Your task to perform on an android device: Open internet settings Image 0: 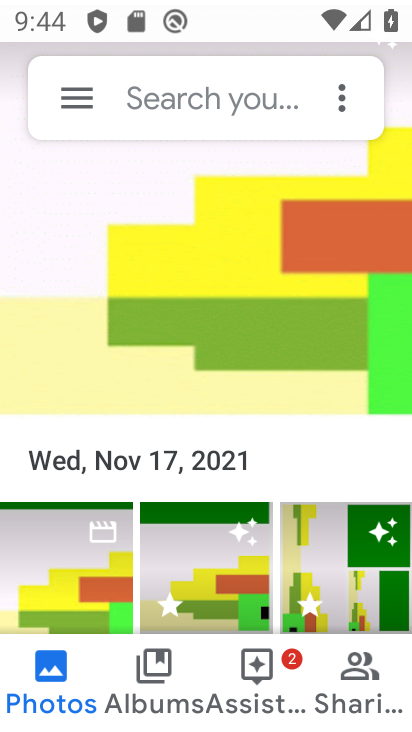
Step 0: press home button
Your task to perform on an android device: Open internet settings Image 1: 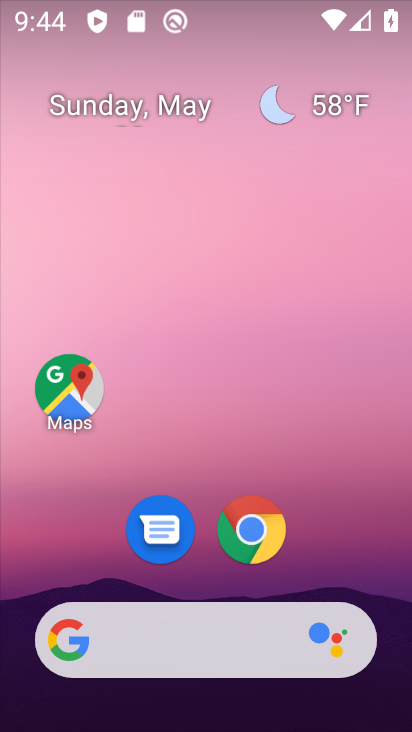
Step 1: drag from (190, 589) to (215, 0)
Your task to perform on an android device: Open internet settings Image 2: 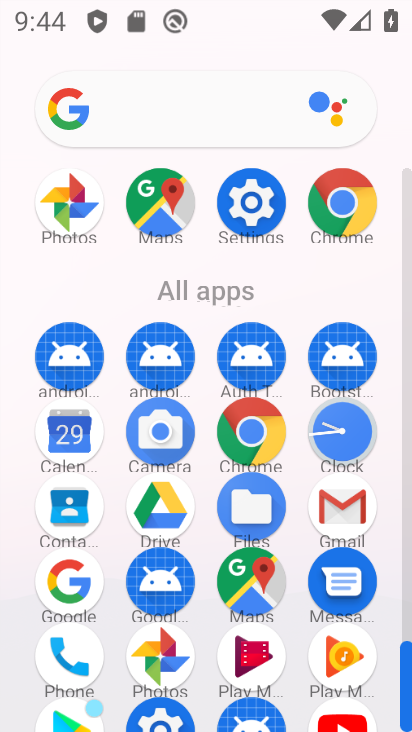
Step 2: click (252, 245)
Your task to perform on an android device: Open internet settings Image 3: 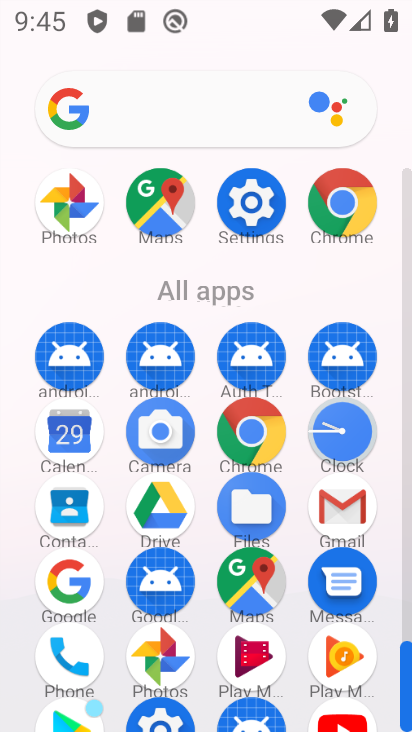
Step 3: click (245, 204)
Your task to perform on an android device: Open internet settings Image 4: 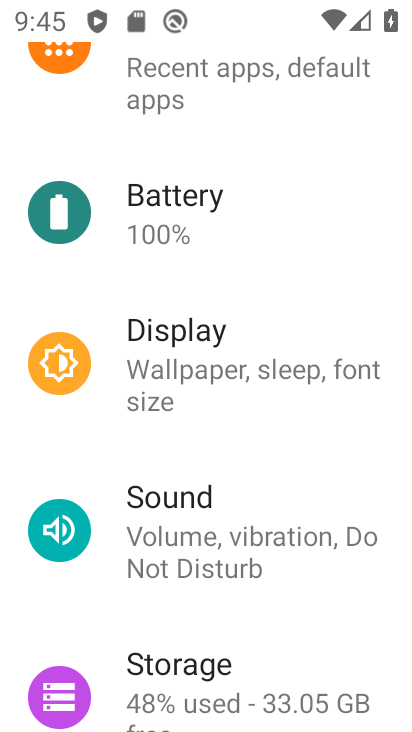
Step 4: drag from (220, 216) to (224, 503)
Your task to perform on an android device: Open internet settings Image 5: 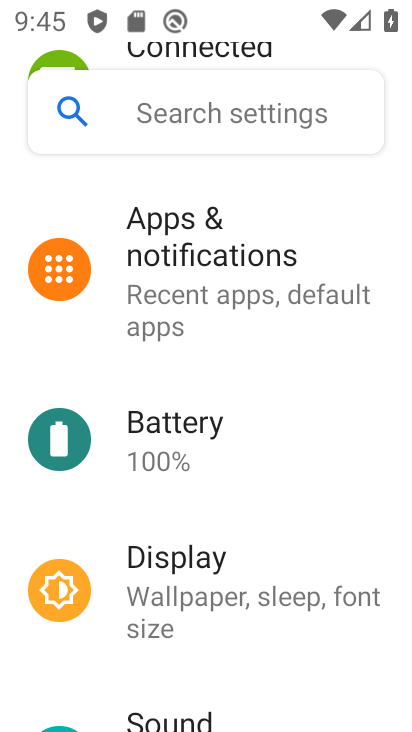
Step 5: drag from (241, 213) to (230, 481)
Your task to perform on an android device: Open internet settings Image 6: 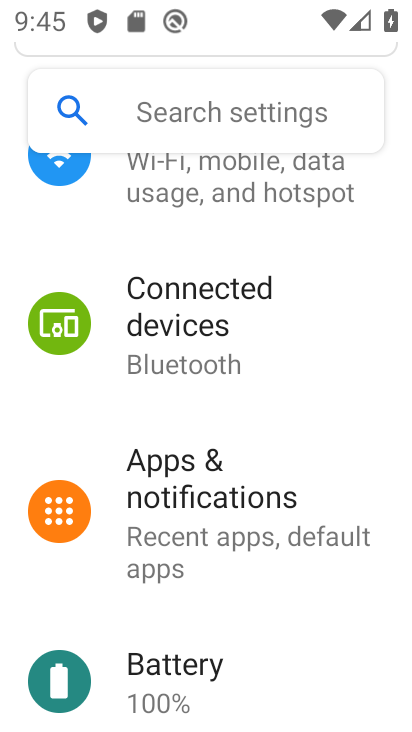
Step 6: drag from (252, 278) to (230, 671)
Your task to perform on an android device: Open internet settings Image 7: 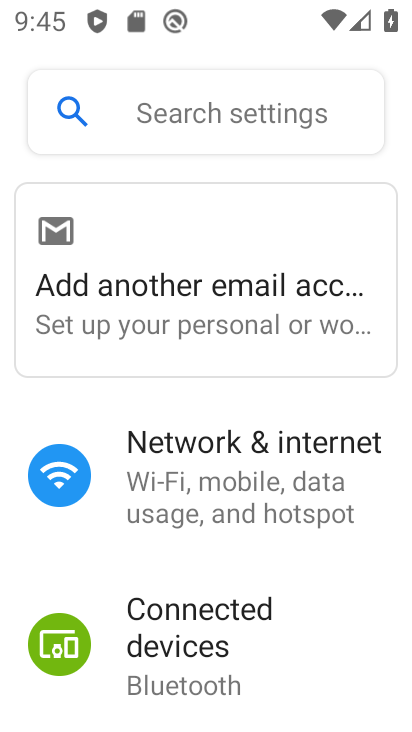
Step 7: click (259, 505)
Your task to perform on an android device: Open internet settings Image 8: 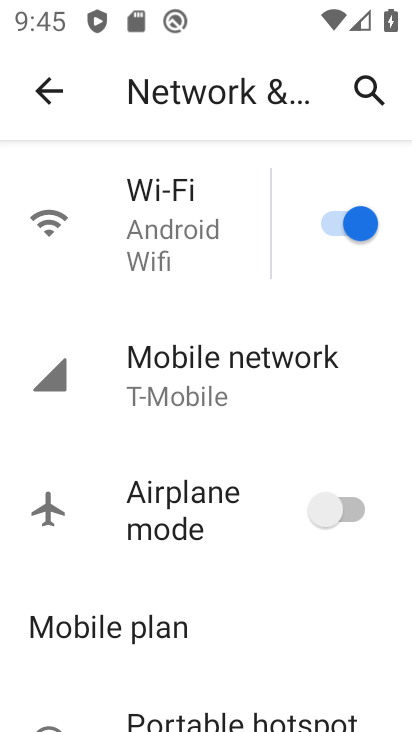
Step 8: task complete